Your task to perform on an android device: toggle show notifications on the lock screen Image 0: 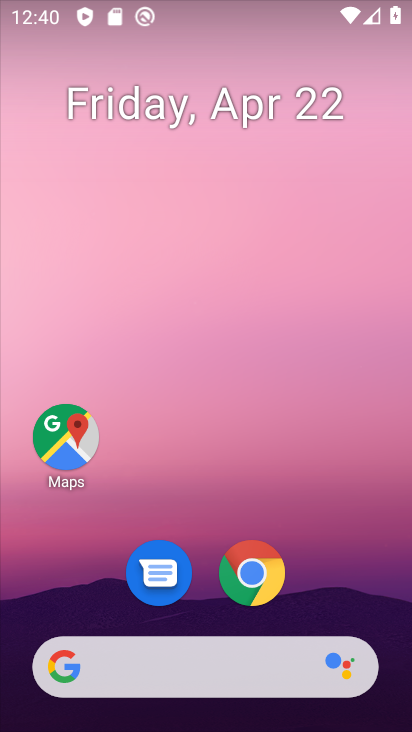
Step 0: drag from (183, 629) to (290, 74)
Your task to perform on an android device: toggle show notifications on the lock screen Image 1: 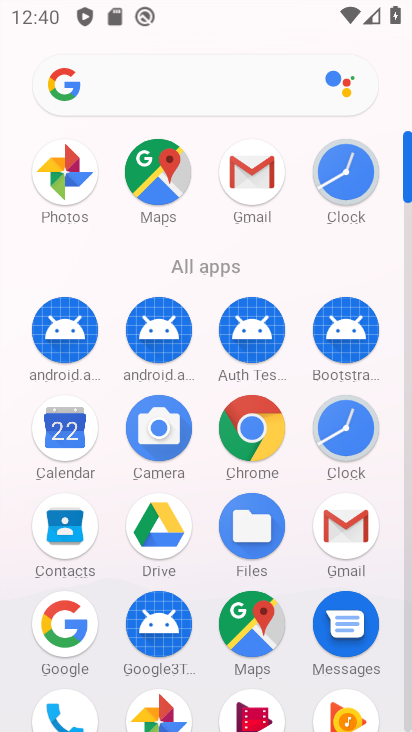
Step 1: drag from (172, 641) to (227, 364)
Your task to perform on an android device: toggle show notifications on the lock screen Image 2: 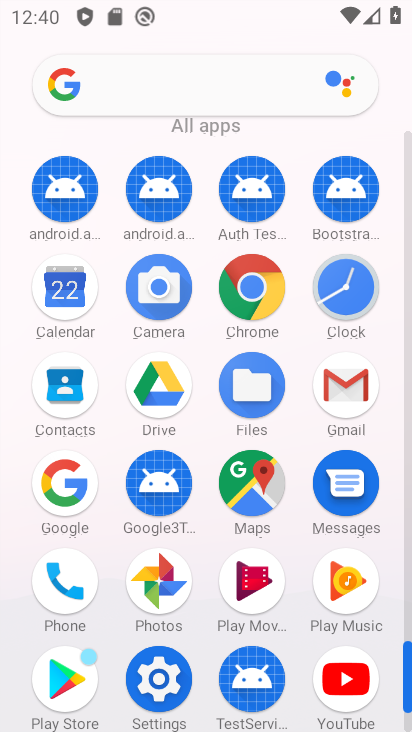
Step 2: click (154, 680)
Your task to perform on an android device: toggle show notifications on the lock screen Image 3: 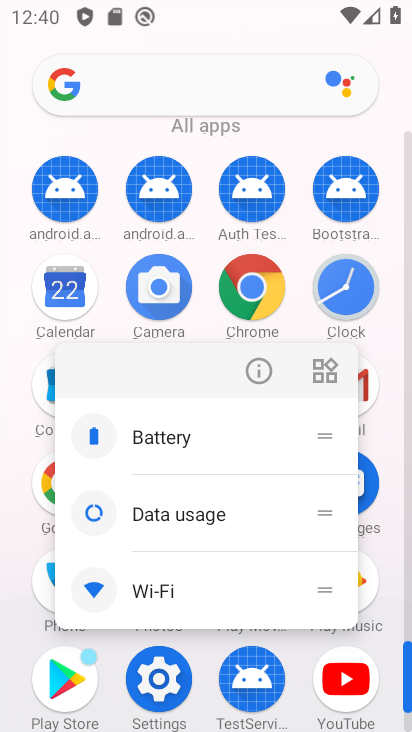
Step 3: click (155, 687)
Your task to perform on an android device: toggle show notifications on the lock screen Image 4: 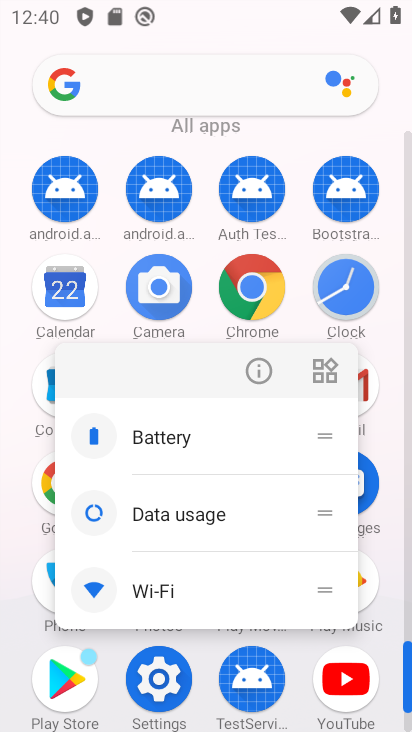
Step 4: click (168, 687)
Your task to perform on an android device: toggle show notifications on the lock screen Image 5: 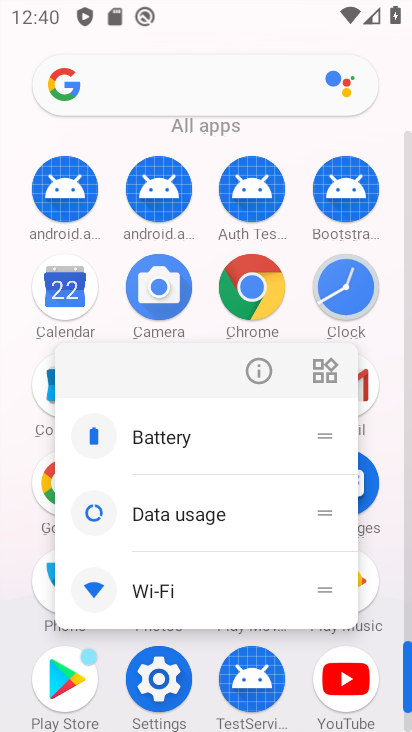
Step 5: click (167, 688)
Your task to perform on an android device: toggle show notifications on the lock screen Image 6: 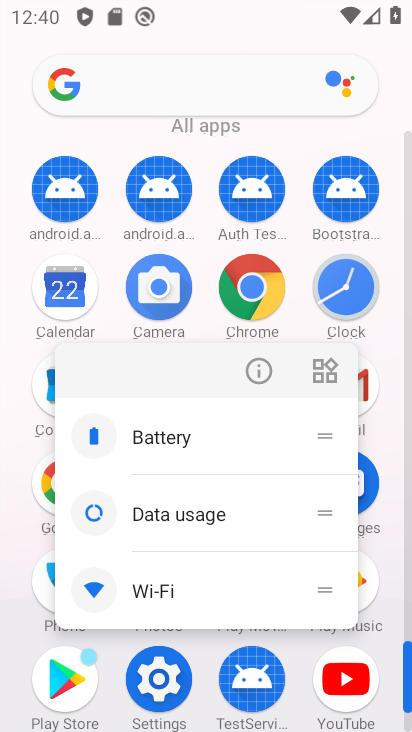
Step 6: click (164, 677)
Your task to perform on an android device: toggle show notifications on the lock screen Image 7: 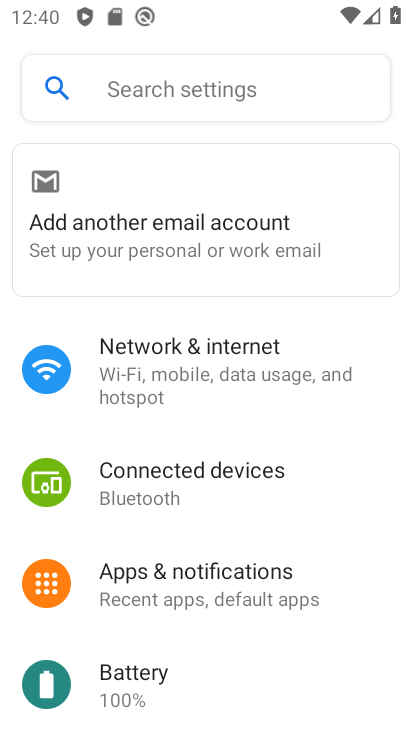
Step 7: drag from (194, 671) to (256, 336)
Your task to perform on an android device: toggle show notifications on the lock screen Image 8: 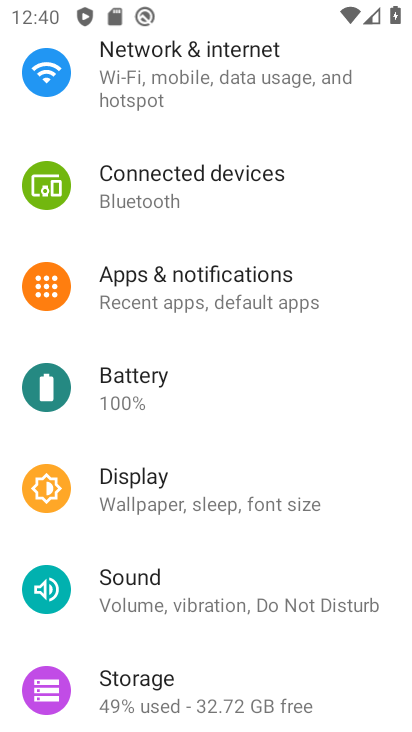
Step 8: click (246, 303)
Your task to perform on an android device: toggle show notifications on the lock screen Image 9: 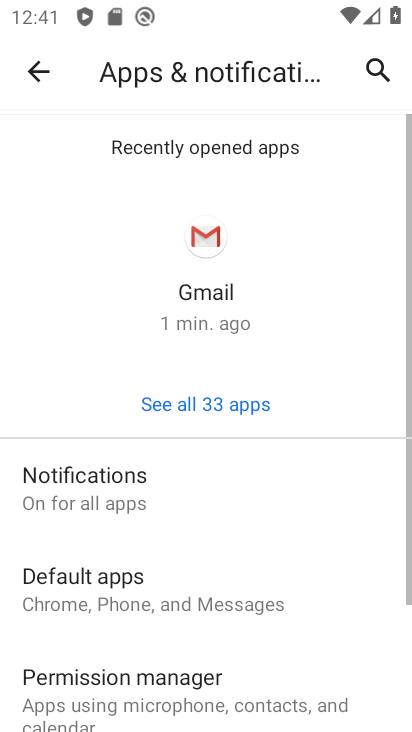
Step 9: click (150, 496)
Your task to perform on an android device: toggle show notifications on the lock screen Image 10: 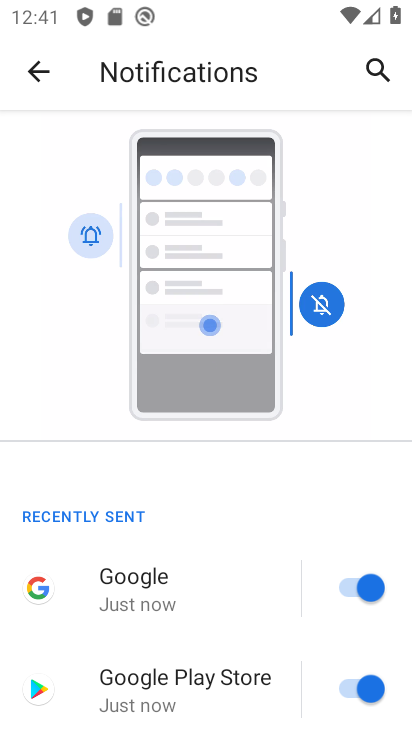
Step 10: drag from (164, 664) to (325, 196)
Your task to perform on an android device: toggle show notifications on the lock screen Image 11: 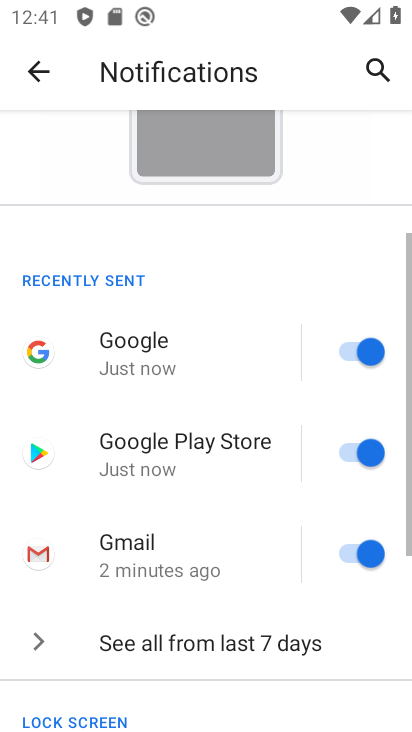
Step 11: drag from (239, 510) to (337, 211)
Your task to perform on an android device: toggle show notifications on the lock screen Image 12: 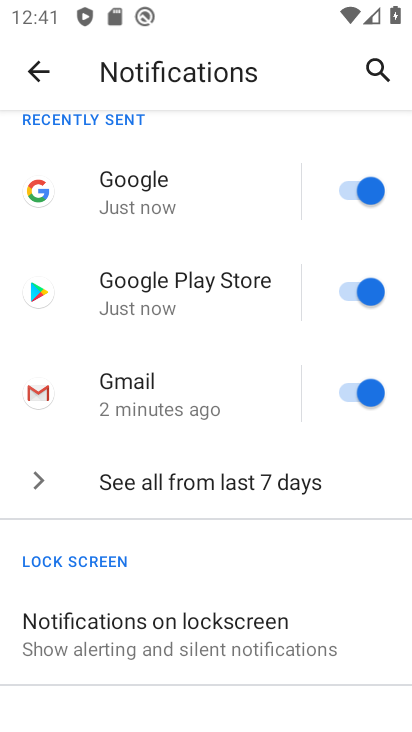
Step 12: click (201, 635)
Your task to perform on an android device: toggle show notifications on the lock screen Image 13: 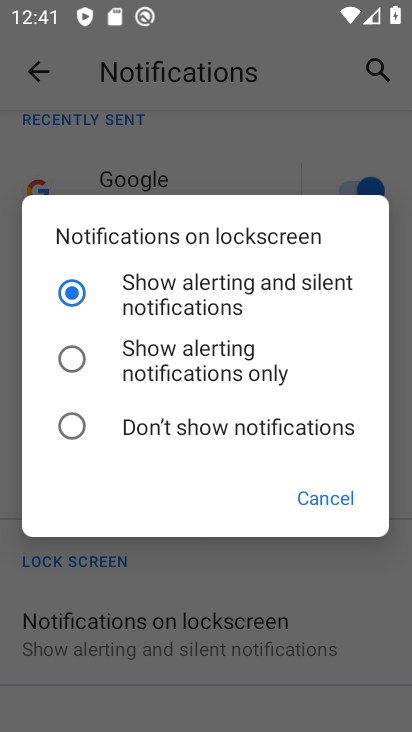
Step 13: click (79, 422)
Your task to perform on an android device: toggle show notifications on the lock screen Image 14: 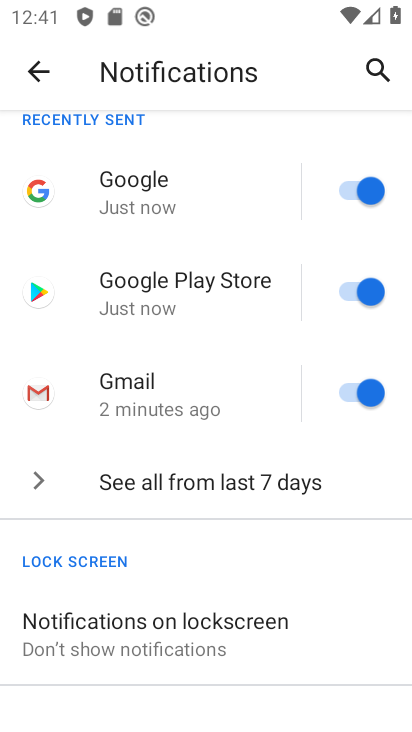
Step 14: task complete